Your task to perform on an android device: turn smart compose on in the gmail app Image 0: 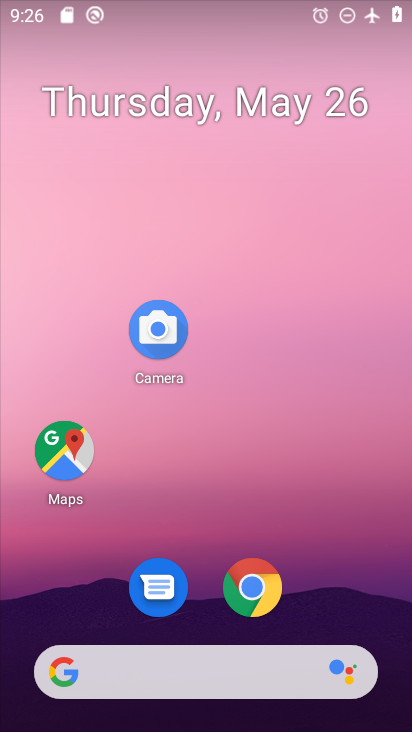
Step 0: drag from (209, 634) to (194, 207)
Your task to perform on an android device: turn smart compose on in the gmail app Image 1: 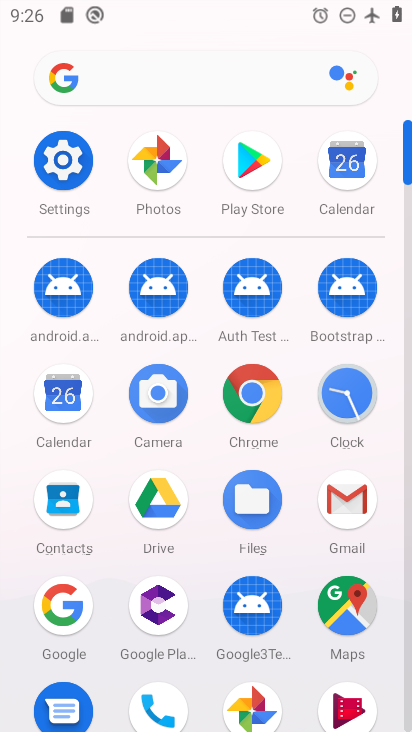
Step 1: click (342, 485)
Your task to perform on an android device: turn smart compose on in the gmail app Image 2: 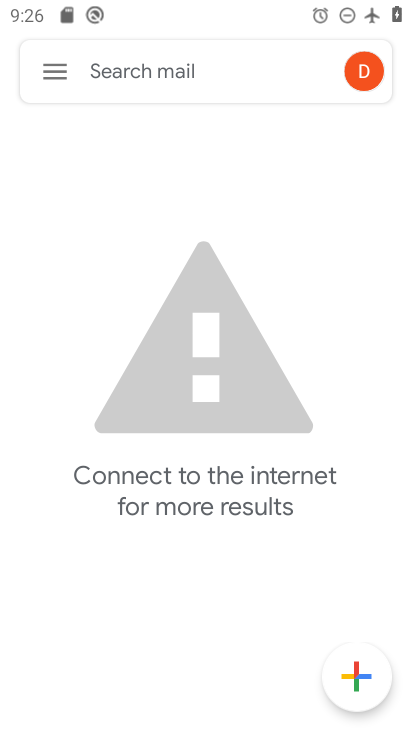
Step 2: click (58, 72)
Your task to perform on an android device: turn smart compose on in the gmail app Image 3: 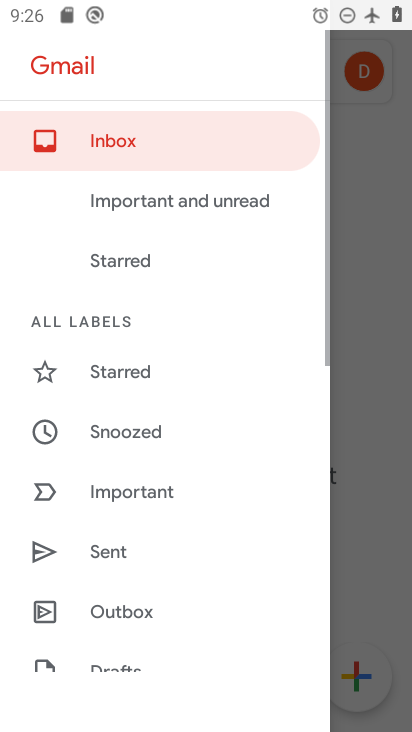
Step 3: drag from (170, 600) to (163, 307)
Your task to perform on an android device: turn smart compose on in the gmail app Image 4: 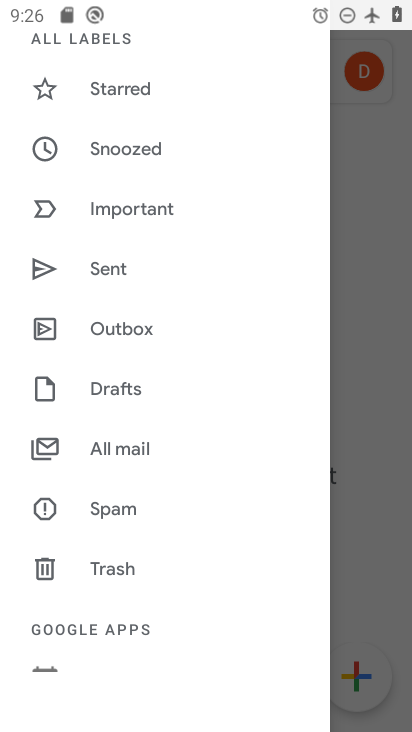
Step 4: drag from (163, 563) to (166, 275)
Your task to perform on an android device: turn smart compose on in the gmail app Image 5: 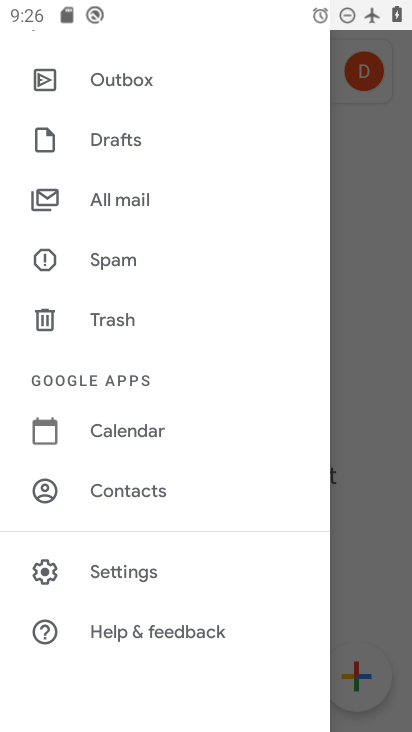
Step 5: click (189, 569)
Your task to perform on an android device: turn smart compose on in the gmail app Image 6: 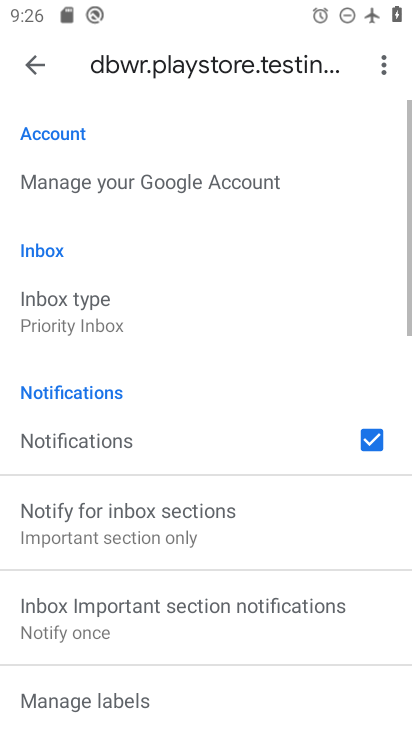
Step 6: task complete